Your task to perform on an android device: add a contact Image 0: 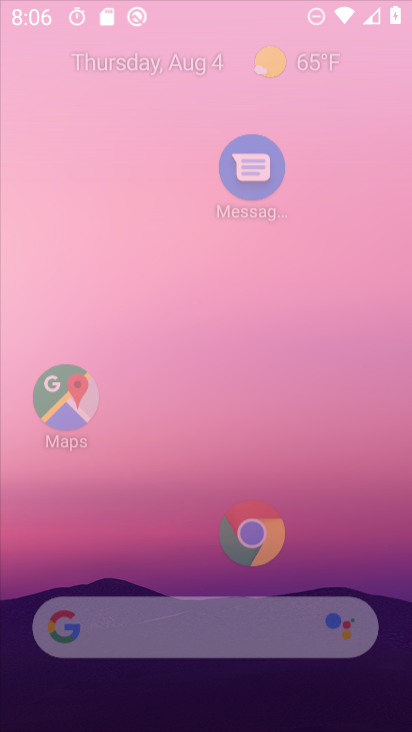
Step 0: press home button
Your task to perform on an android device: add a contact Image 1: 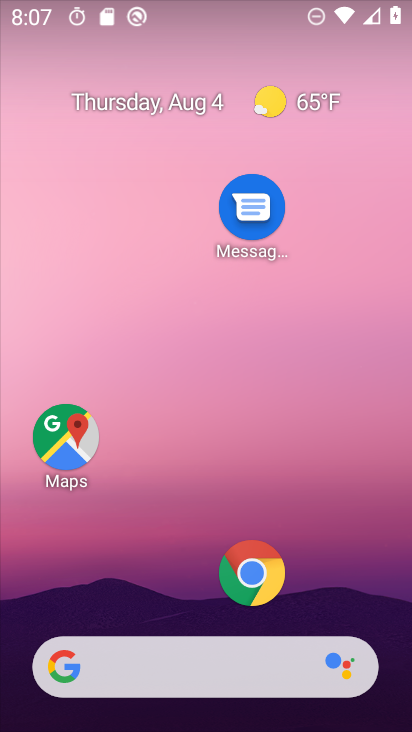
Step 1: drag from (208, 627) to (280, 82)
Your task to perform on an android device: add a contact Image 2: 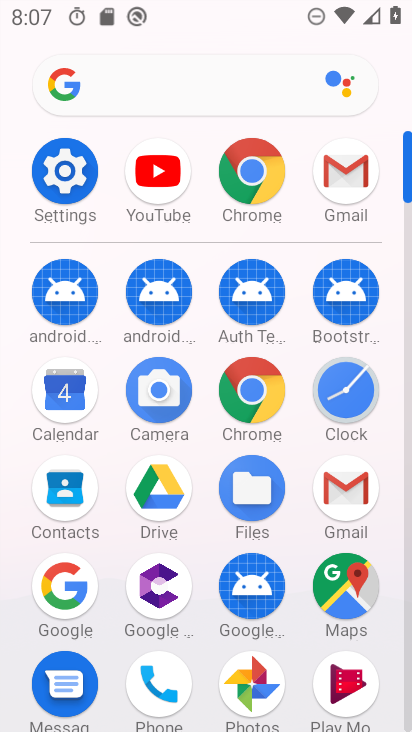
Step 2: click (73, 497)
Your task to perform on an android device: add a contact Image 3: 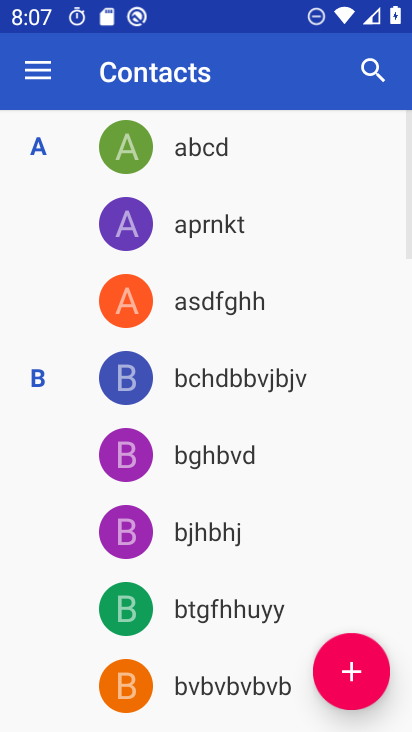
Step 3: click (351, 675)
Your task to perform on an android device: add a contact Image 4: 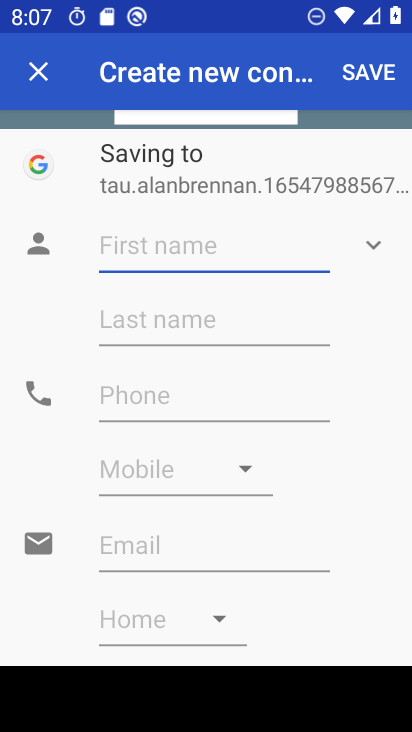
Step 4: type "bvbvbvb"
Your task to perform on an android device: add a contact Image 5: 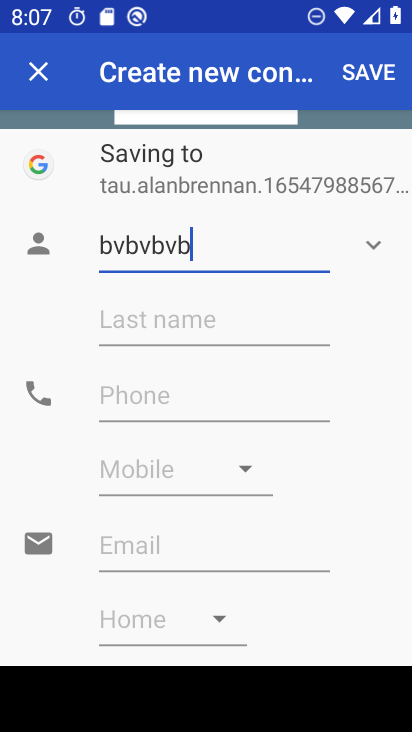
Step 5: click (144, 383)
Your task to perform on an android device: add a contact Image 6: 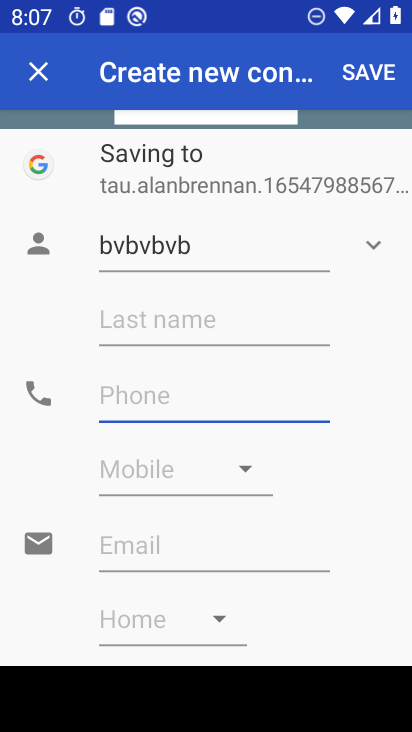
Step 6: type "787878"
Your task to perform on an android device: add a contact Image 7: 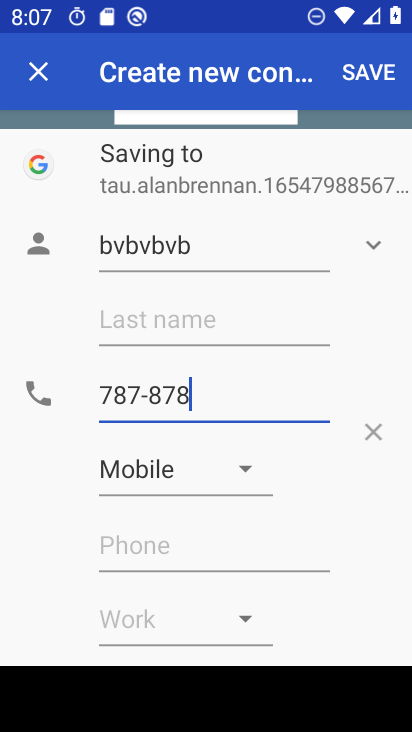
Step 7: click (359, 75)
Your task to perform on an android device: add a contact Image 8: 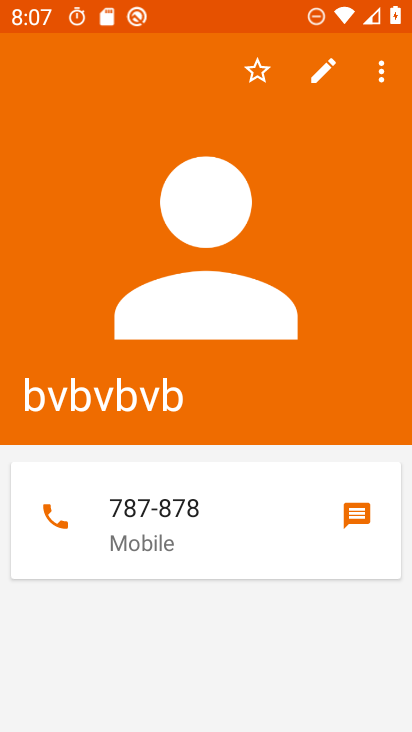
Step 8: task complete